Your task to perform on an android device: Open Reddit.com Image 0: 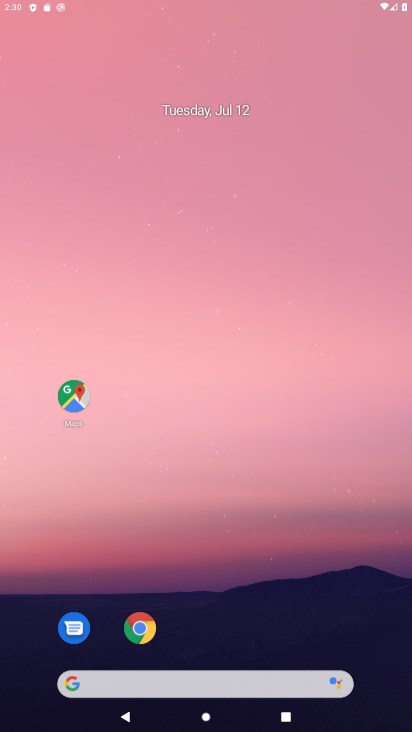
Step 0: drag from (202, 637) to (253, 108)
Your task to perform on an android device: Open Reddit.com Image 1: 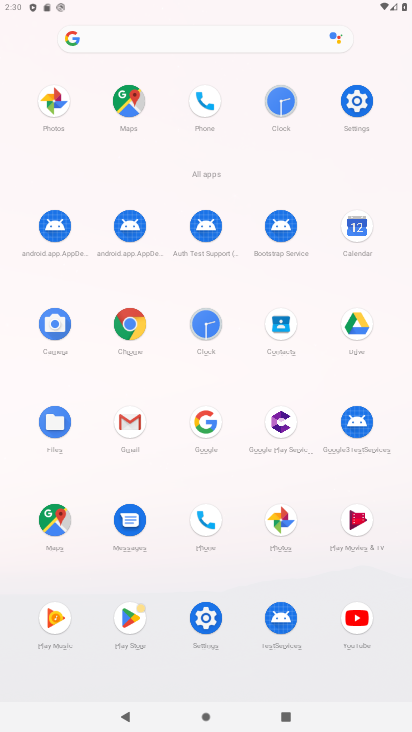
Step 1: click (202, 421)
Your task to perform on an android device: Open Reddit.com Image 2: 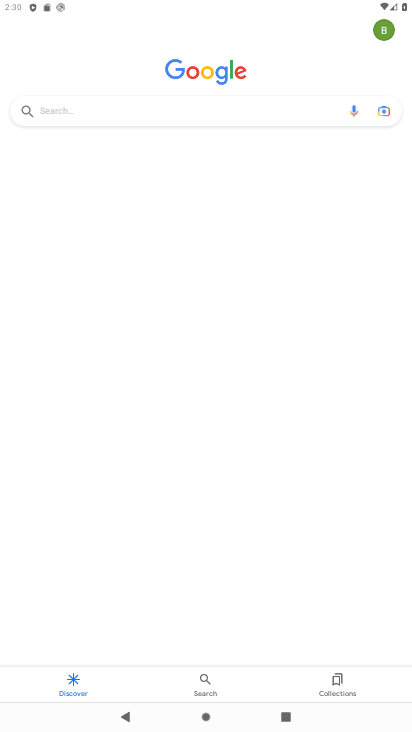
Step 2: click (182, 108)
Your task to perform on an android device: Open Reddit.com Image 3: 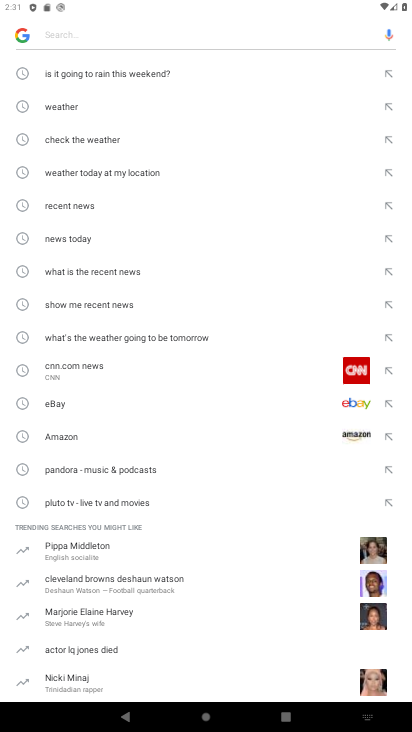
Step 3: type "reddit.com"
Your task to perform on an android device: Open Reddit.com Image 4: 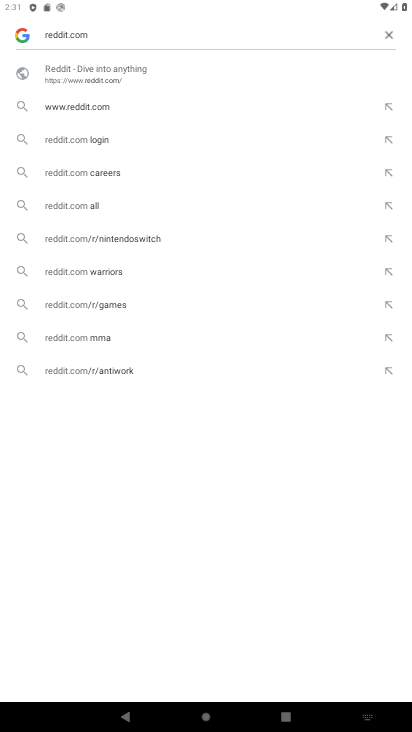
Step 4: click (106, 111)
Your task to perform on an android device: Open Reddit.com Image 5: 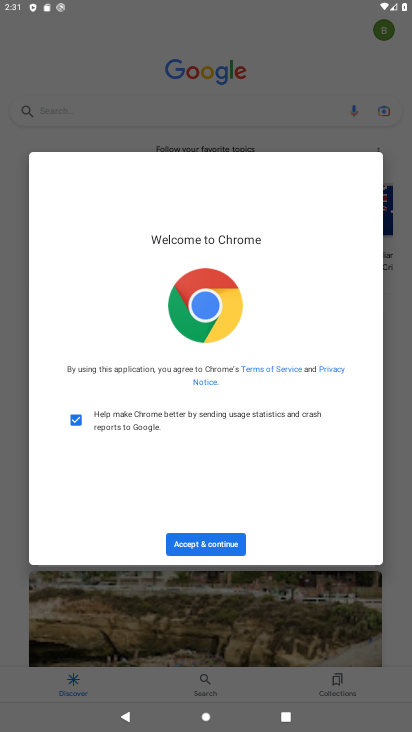
Step 5: click (199, 553)
Your task to perform on an android device: Open Reddit.com Image 6: 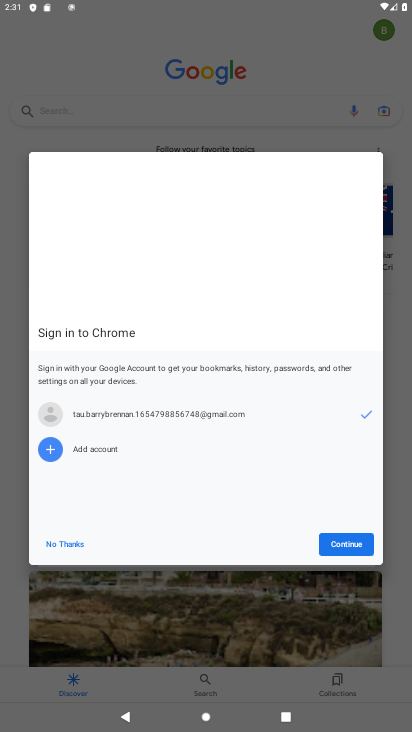
Step 6: click (350, 547)
Your task to perform on an android device: Open Reddit.com Image 7: 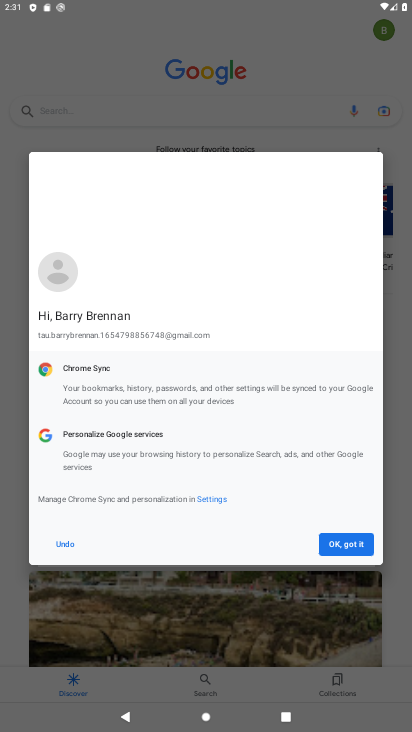
Step 7: click (350, 547)
Your task to perform on an android device: Open Reddit.com Image 8: 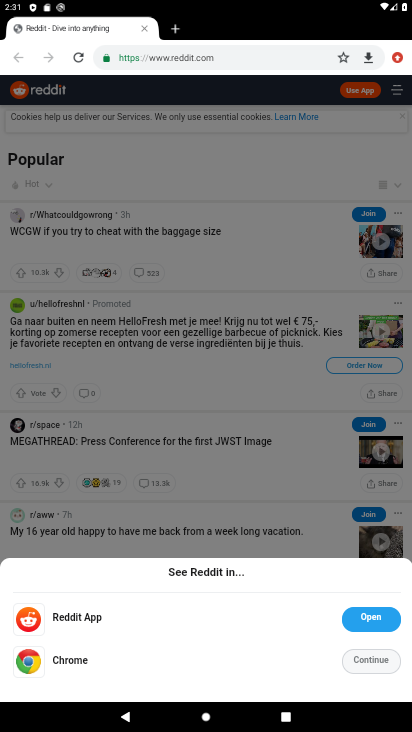
Step 8: task complete